Your task to perform on an android device: Open settings Image 0: 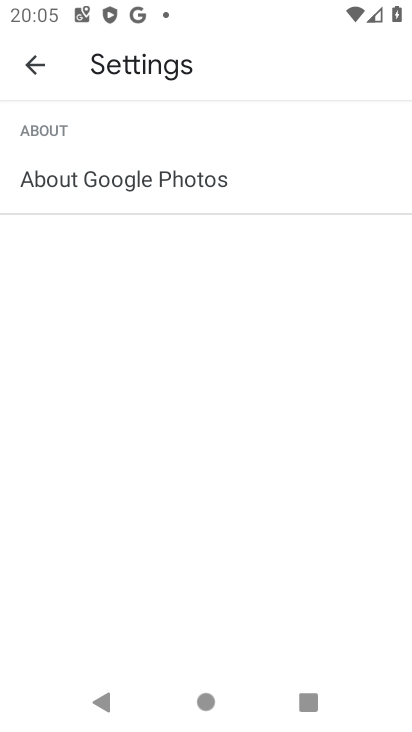
Step 0: press home button
Your task to perform on an android device: Open settings Image 1: 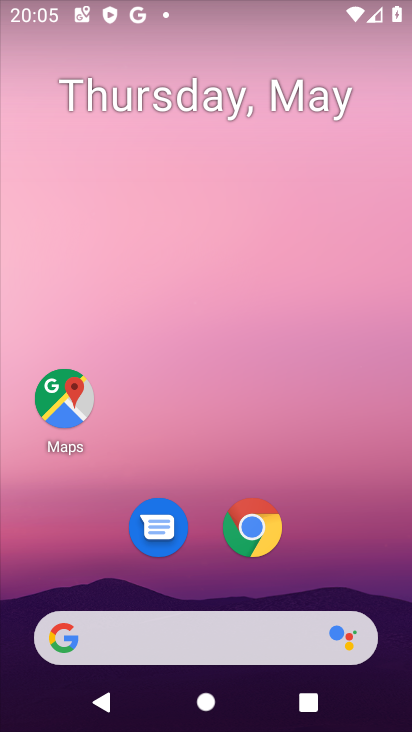
Step 1: drag from (58, 625) to (410, 21)
Your task to perform on an android device: Open settings Image 2: 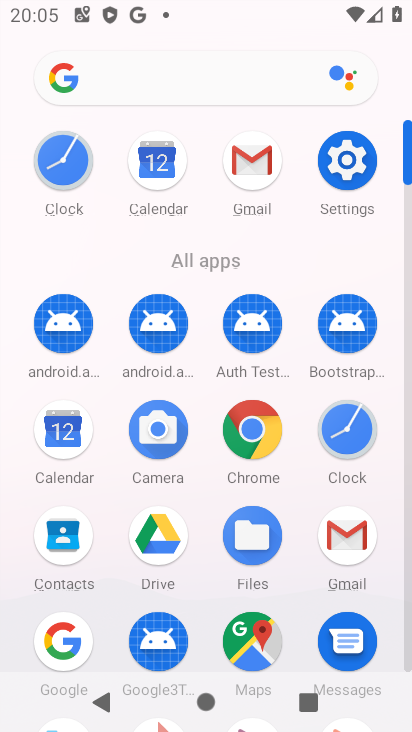
Step 2: click (334, 175)
Your task to perform on an android device: Open settings Image 3: 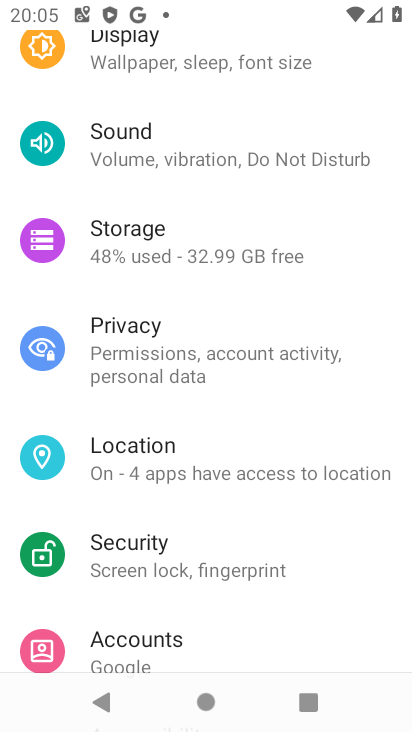
Step 3: task complete